Your task to perform on an android device: add a contact in the contacts app Image 0: 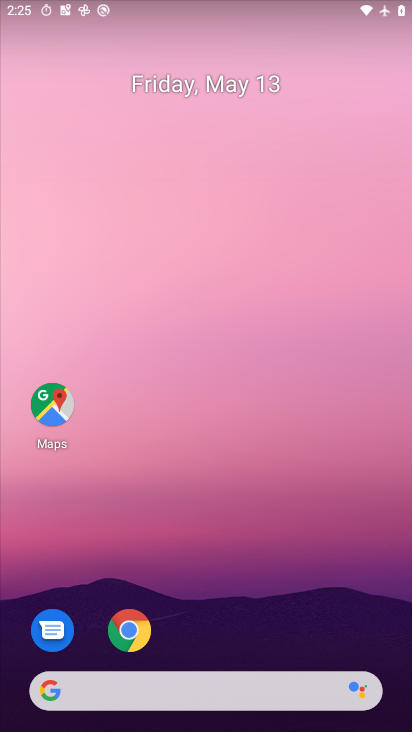
Step 0: drag from (282, 660) to (222, 189)
Your task to perform on an android device: add a contact in the contacts app Image 1: 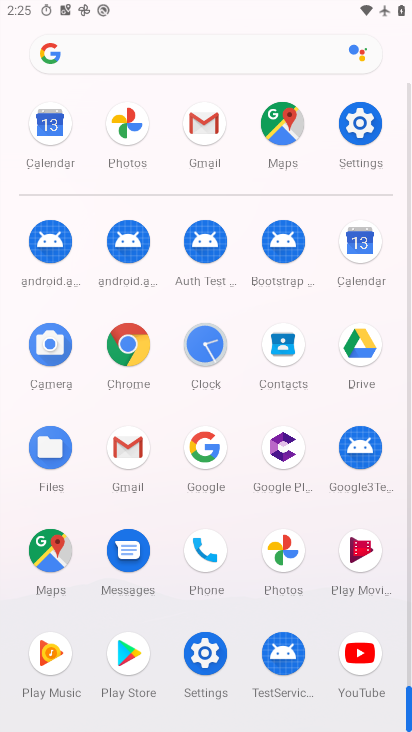
Step 1: click (279, 358)
Your task to perform on an android device: add a contact in the contacts app Image 2: 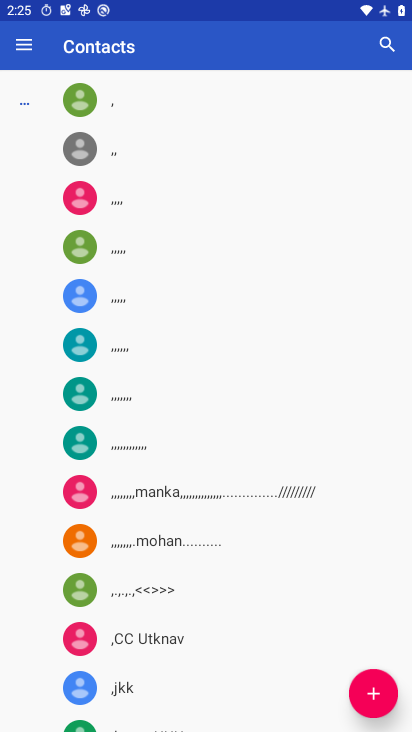
Step 2: click (388, 687)
Your task to perform on an android device: add a contact in the contacts app Image 3: 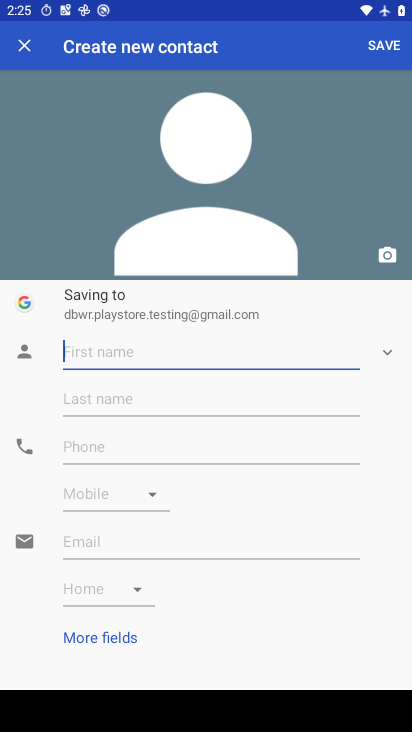
Step 3: click (143, 358)
Your task to perform on an android device: add a contact in the contacts app Image 4: 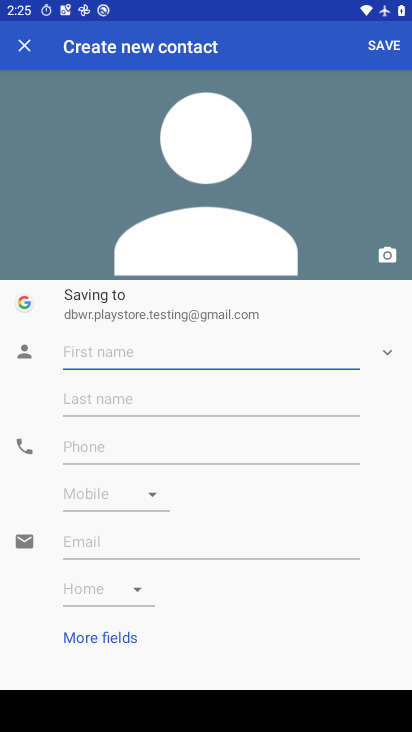
Step 4: type "tgeddthtfhtdg"
Your task to perform on an android device: add a contact in the contacts app Image 5: 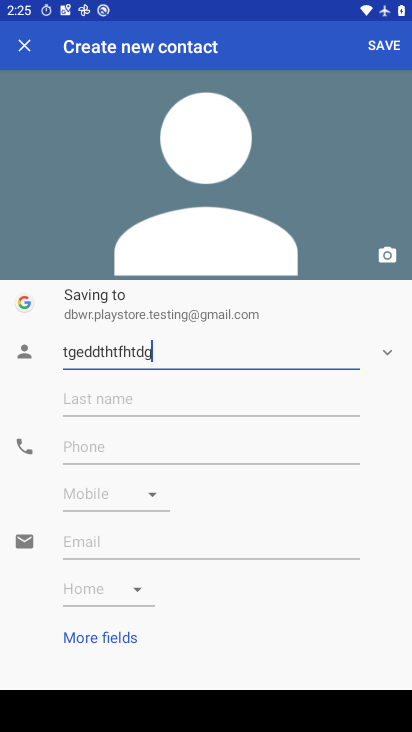
Step 5: type ""
Your task to perform on an android device: add a contact in the contacts app Image 6: 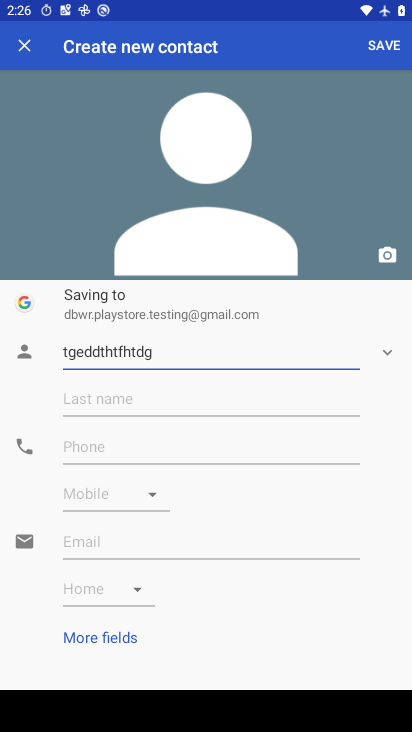
Step 6: click (378, 51)
Your task to perform on an android device: add a contact in the contacts app Image 7: 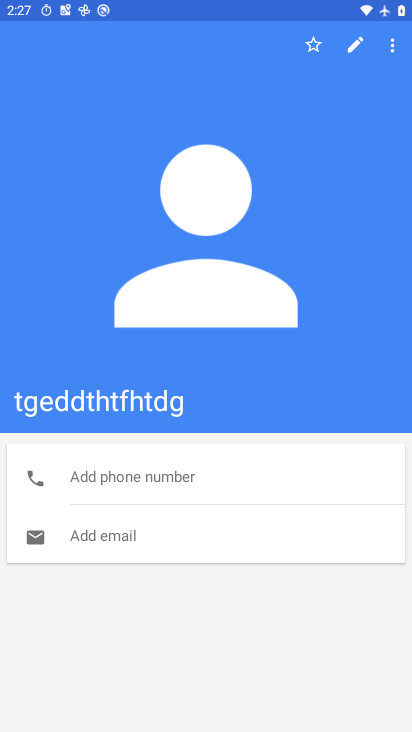
Step 7: task complete